Your task to perform on an android device: Open the map Image 0: 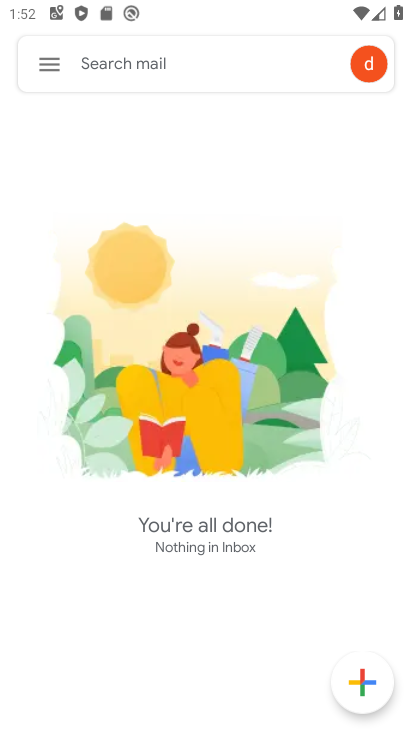
Step 0: press home button
Your task to perform on an android device: Open the map Image 1: 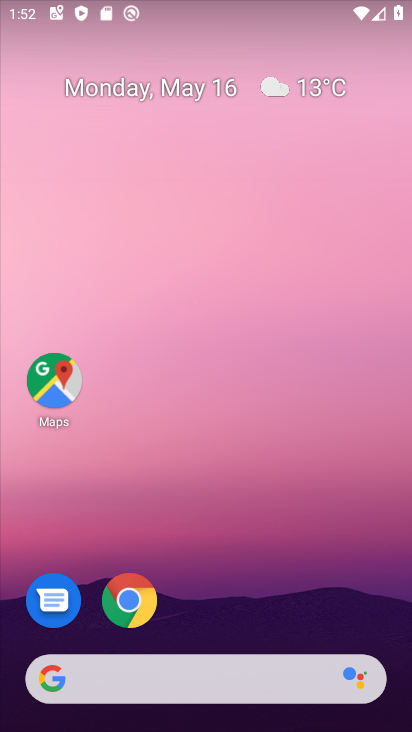
Step 1: click (59, 381)
Your task to perform on an android device: Open the map Image 2: 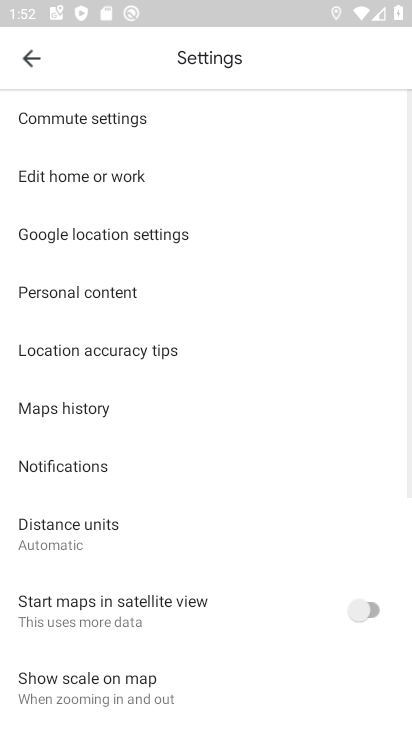
Step 2: click (5, 52)
Your task to perform on an android device: Open the map Image 3: 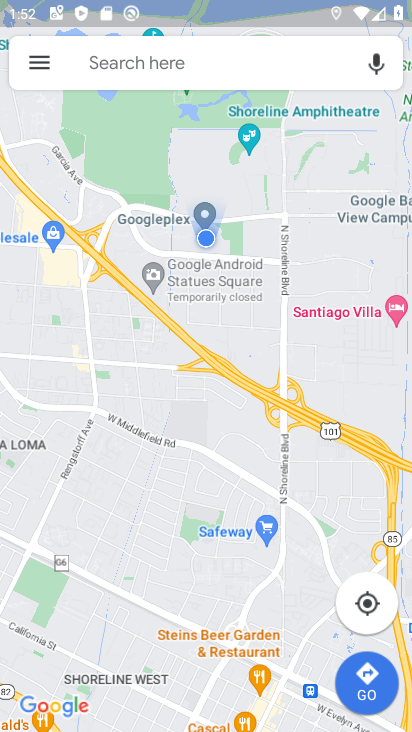
Step 3: task complete